Your task to perform on an android device: clear all cookies in the chrome app Image 0: 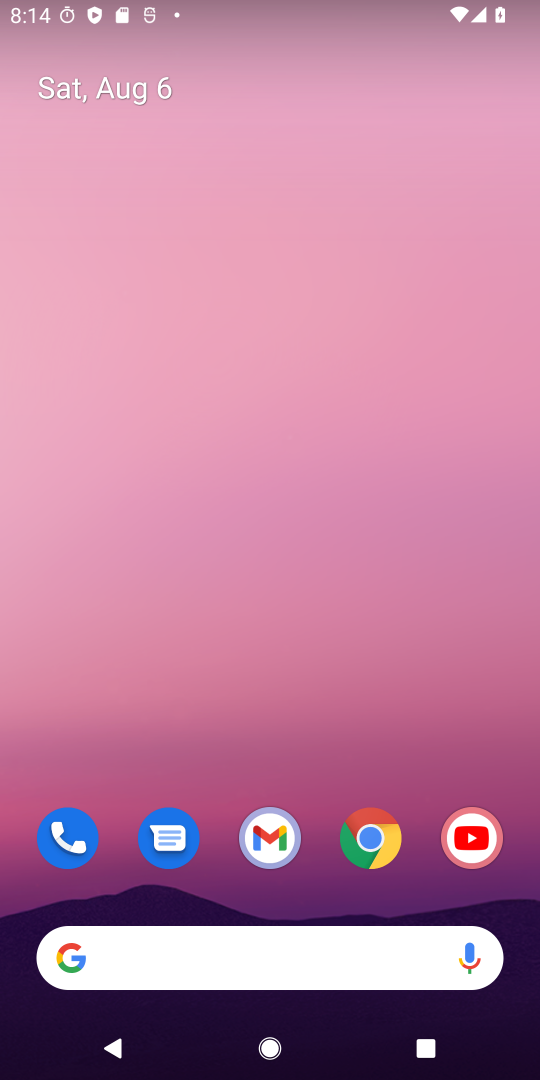
Step 0: click (366, 854)
Your task to perform on an android device: clear all cookies in the chrome app Image 1: 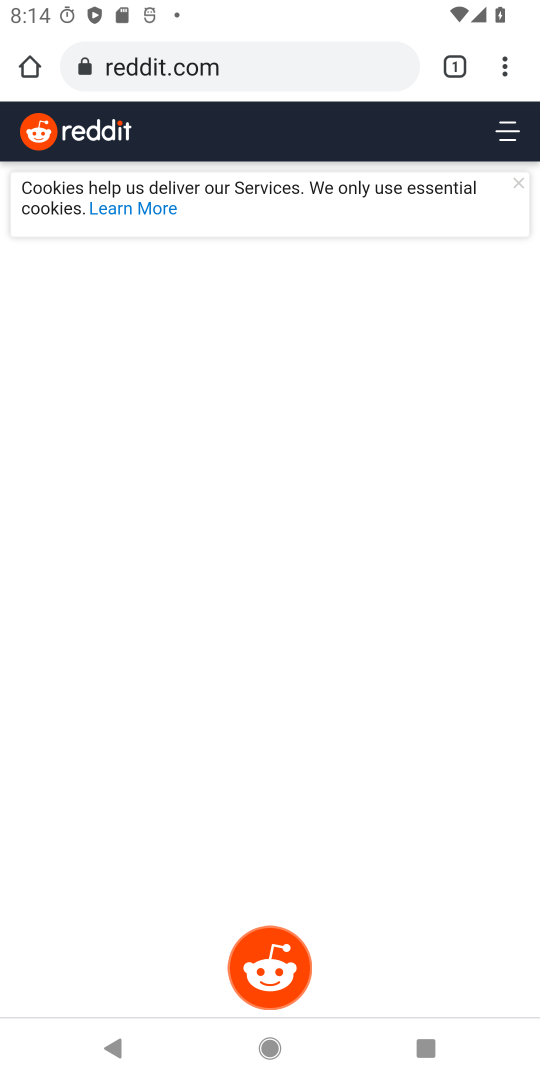
Step 1: click (502, 73)
Your task to perform on an android device: clear all cookies in the chrome app Image 2: 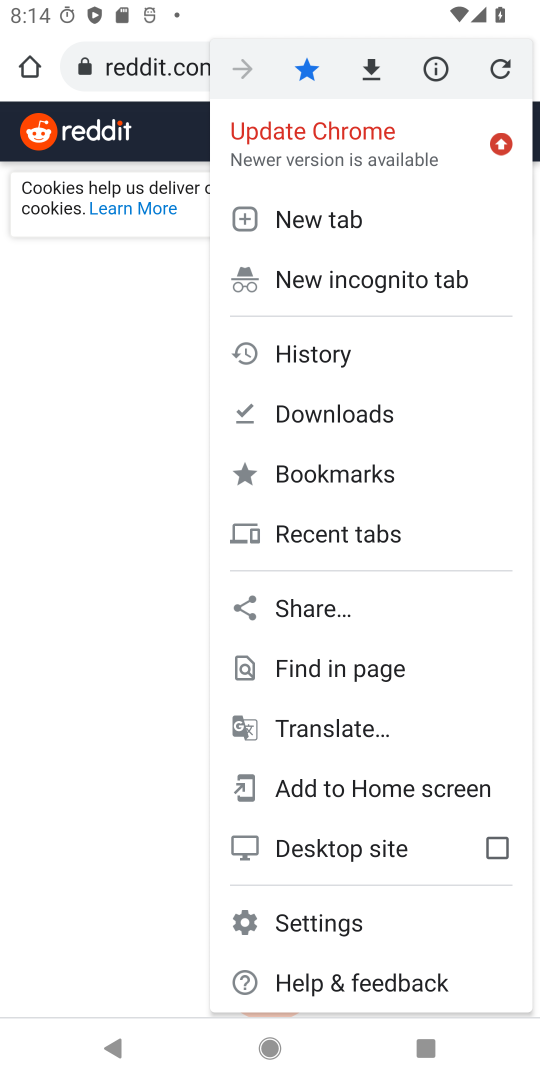
Step 2: click (309, 914)
Your task to perform on an android device: clear all cookies in the chrome app Image 3: 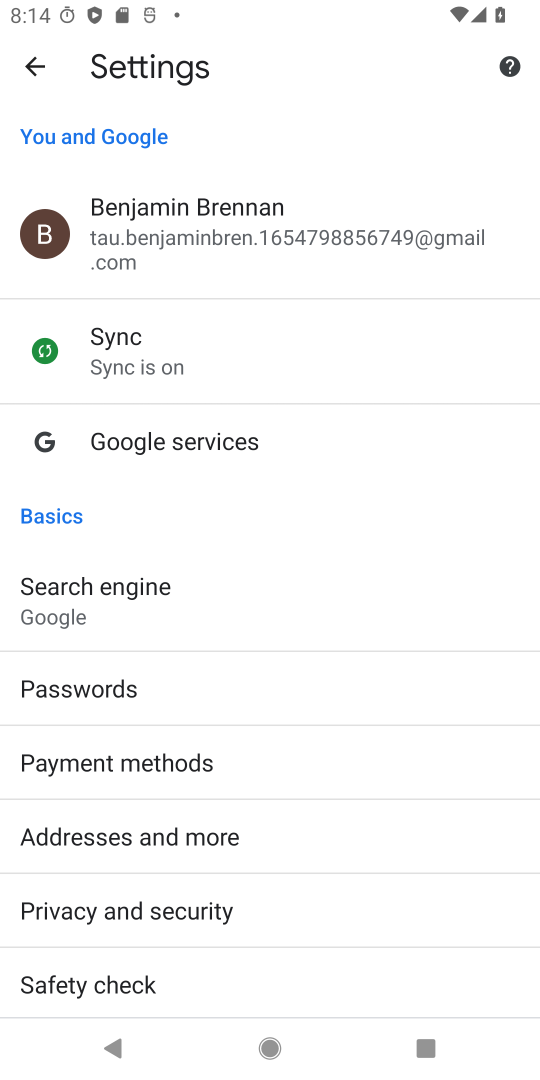
Step 3: press back button
Your task to perform on an android device: clear all cookies in the chrome app Image 4: 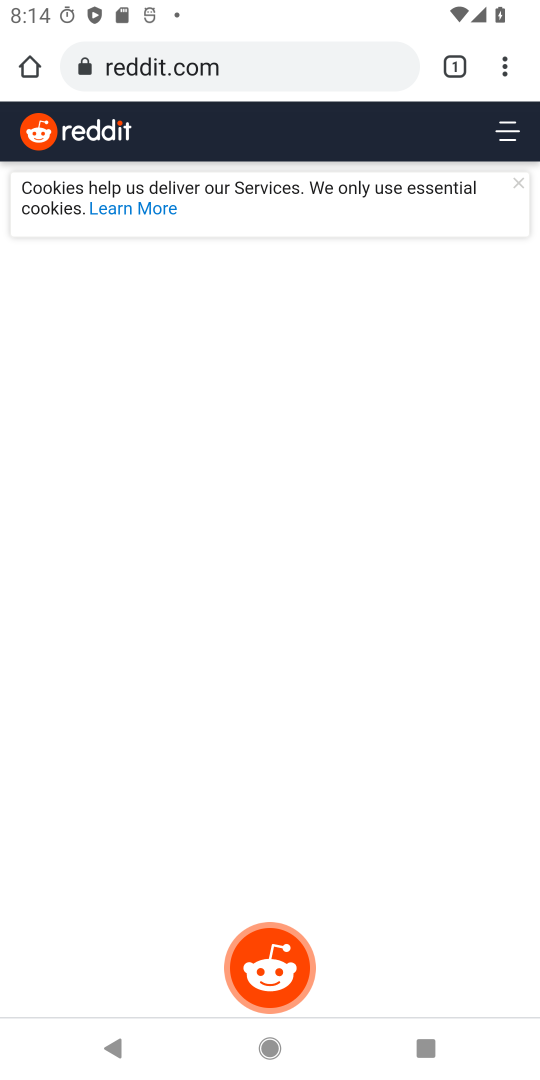
Step 4: press back button
Your task to perform on an android device: clear all cookies in the chrome app Image 5: 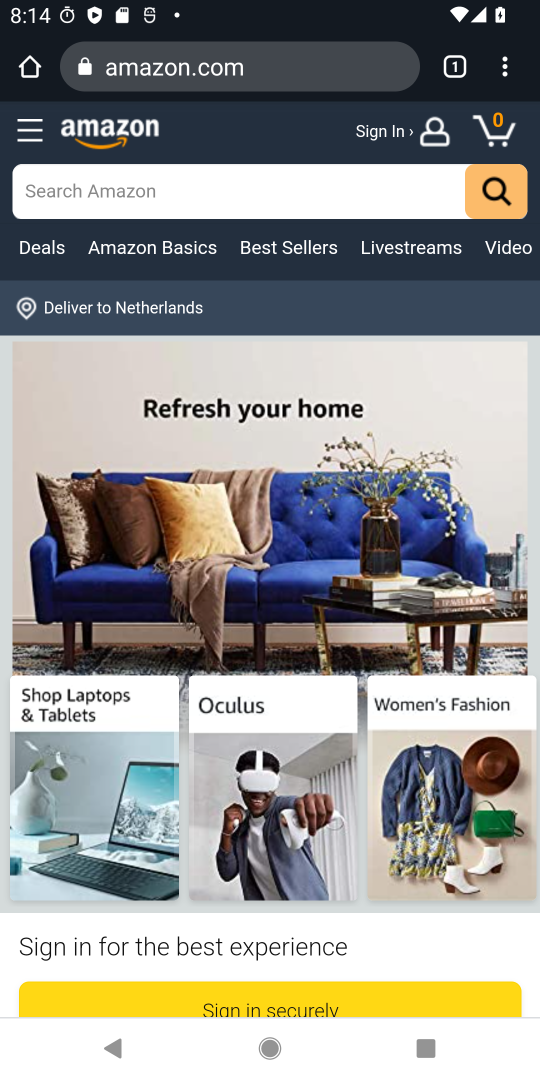
Step 5: click (503, 70)
Your task to perform on an android device: clear all cookies in the chrome app Image 6: 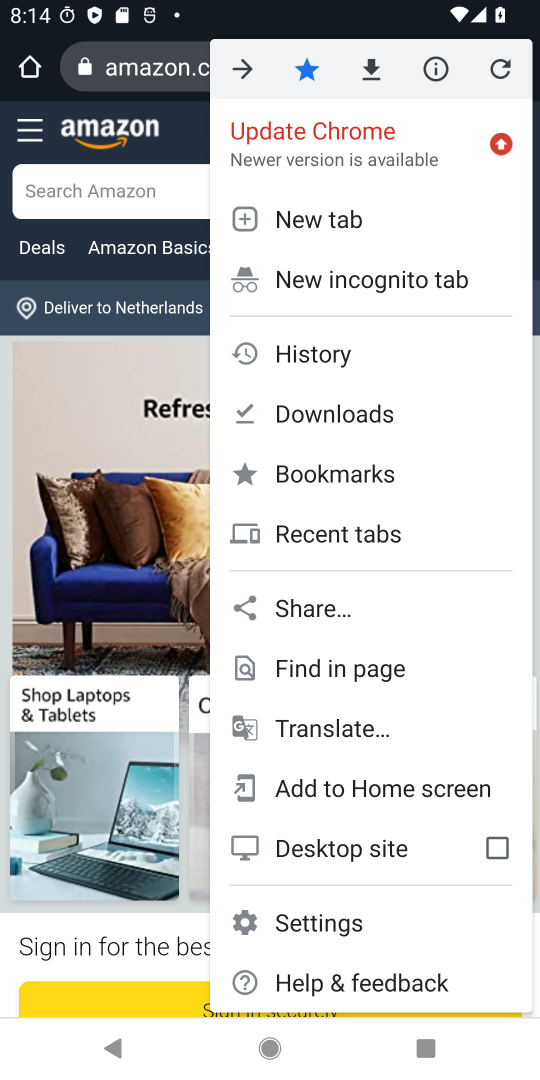
Step 6: click (332, 351)
Your task to perform on an android device: clear all cookies in the chrome app Image 7: 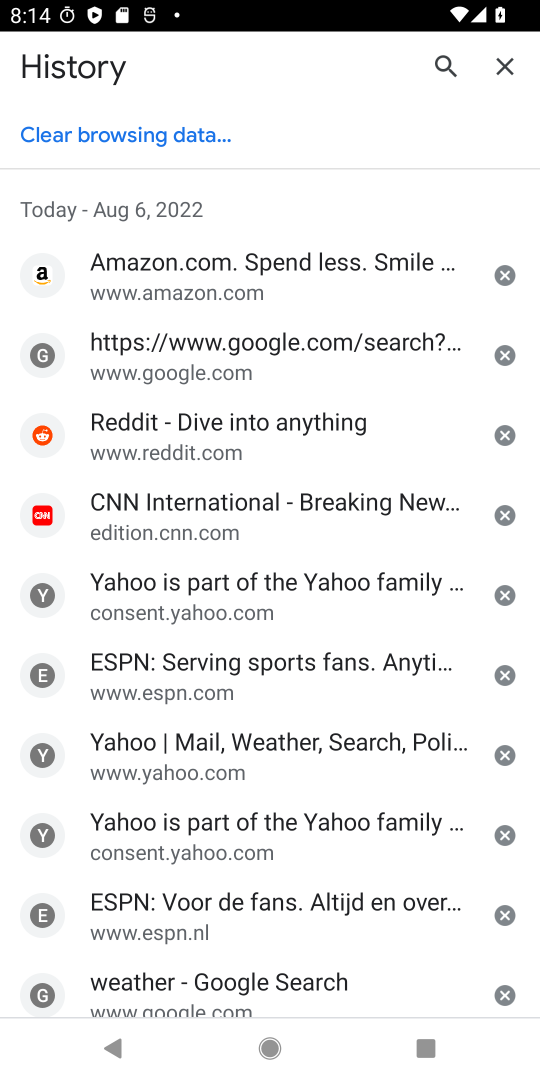
Step 7: click (190, 133)
Your task to perform on an android device: clear all cookies in the chrome app Image 8: 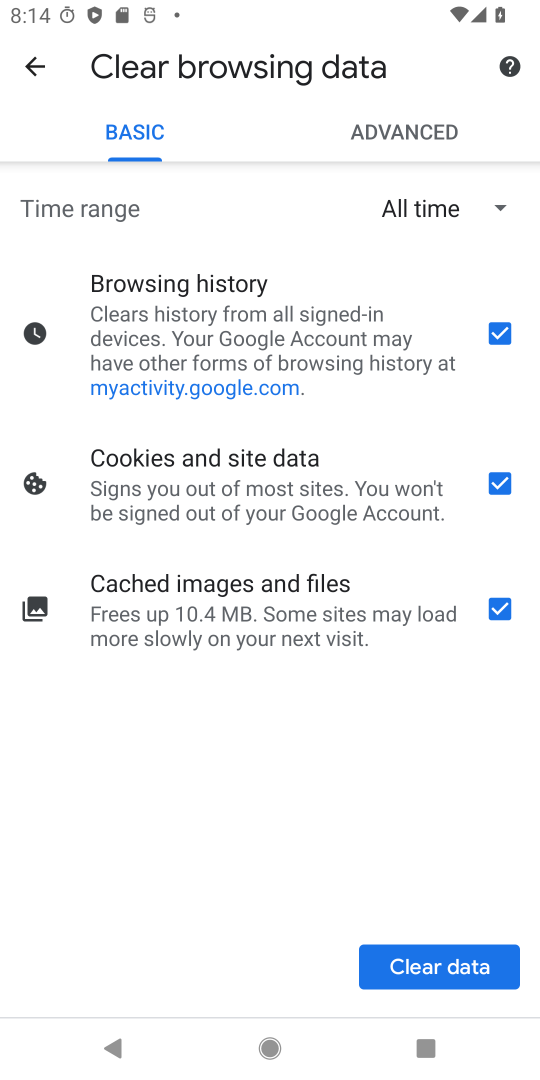
Step 8: click (507, 331)
Your task to perform on an android device: clear all cookies in the chrome app Image 9: 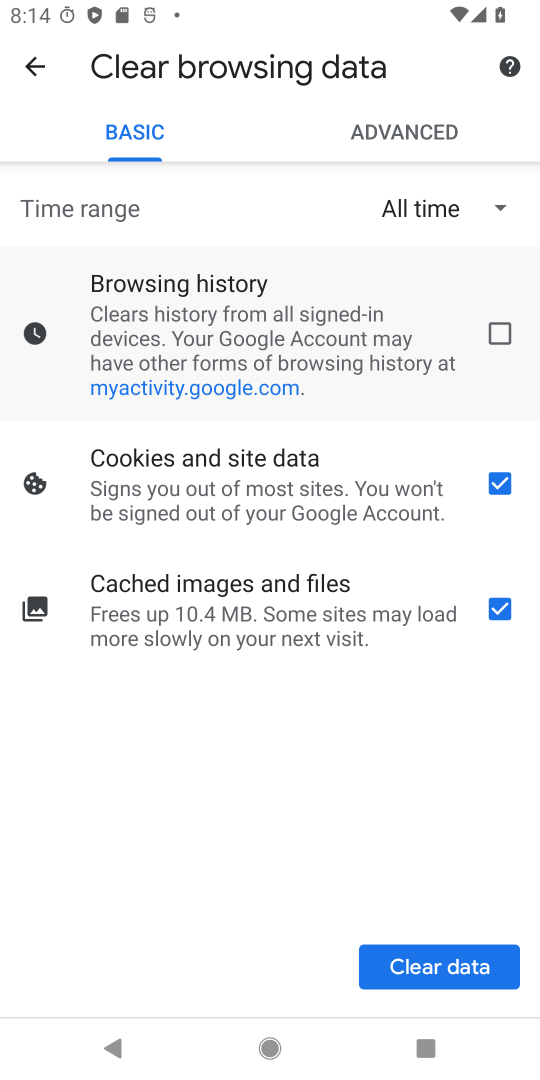
Step 9: click (506, 603)
Your task to perform on an android device: clear all cookies in the chrome app Image 10: 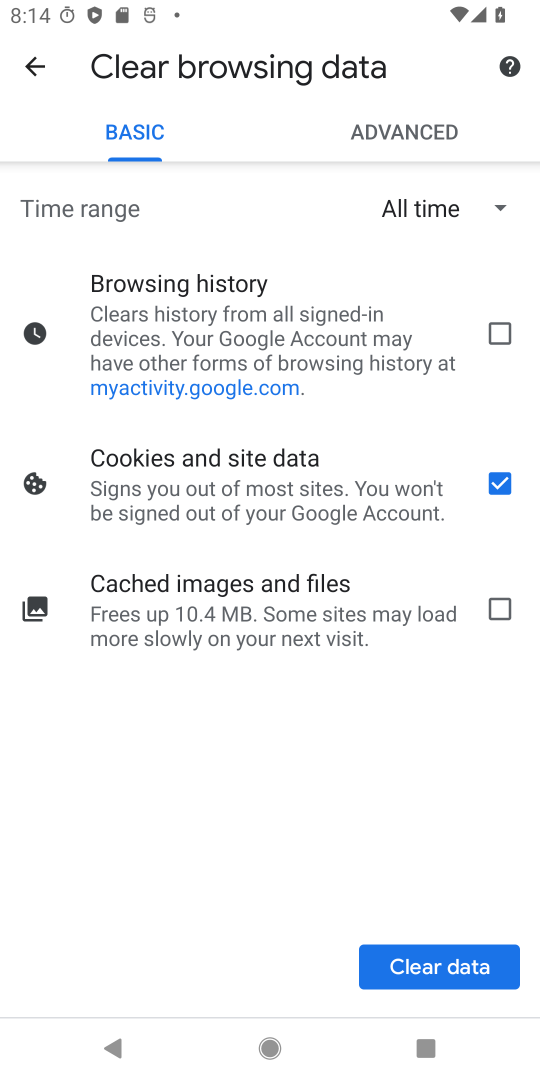
Step 10: click (393, 954)
Your task to perform on an android device: clear all cookies in the chrome app Image 11: 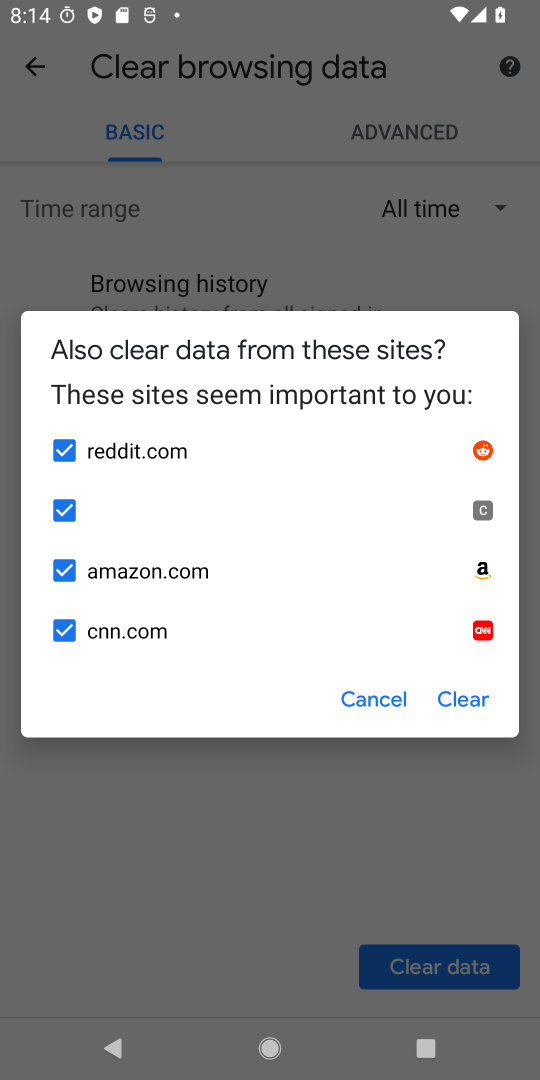
Step 11: click (464, 693)
Your task to perform on an android device: clear all cookies in the chrome app Image 12: 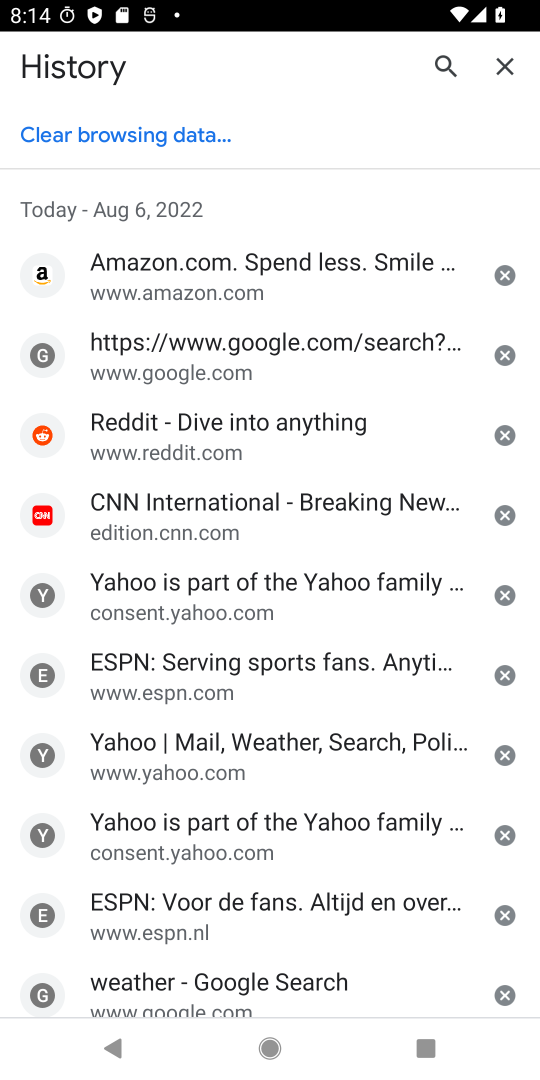
Step 12: task complete